Your task to perform on an android device: Turn on the flashlight Image 0: 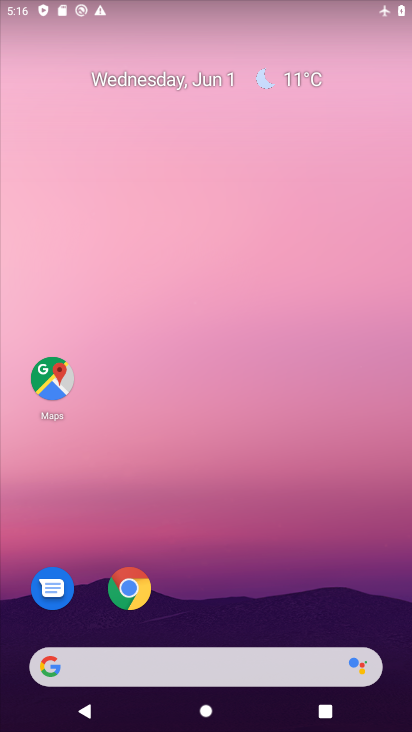
Step 0: drag from (340, 8) to (283, 675)
Your task to perform on an android device: Turn on the flashlight Image 1: 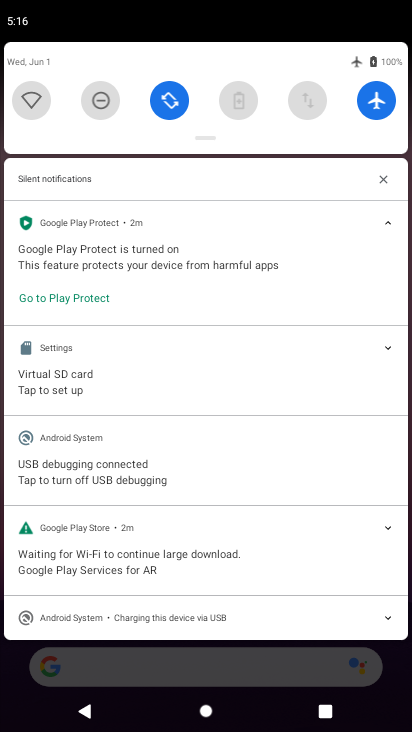
Step 1: task complete